Your task to perform on an android device: Open wifi settings Image 0: 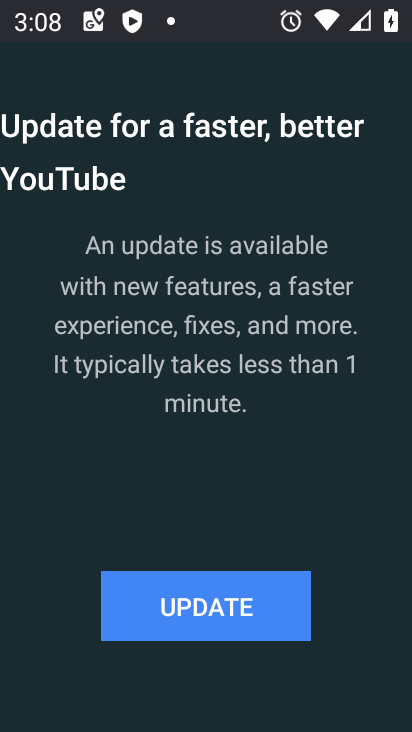
Step 0: press back button
Your task to perform on an android device: Open wifi settings Image 1: 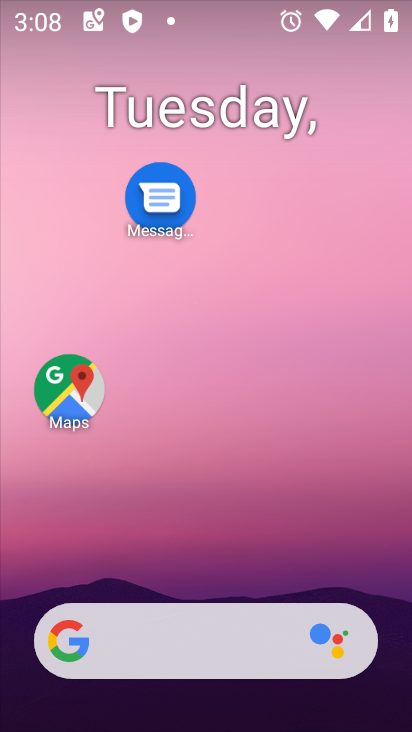
Step 1: drag from (267, 571) to (276, 185)
Your task to perform on an android device: Open wifi settings Image 2: 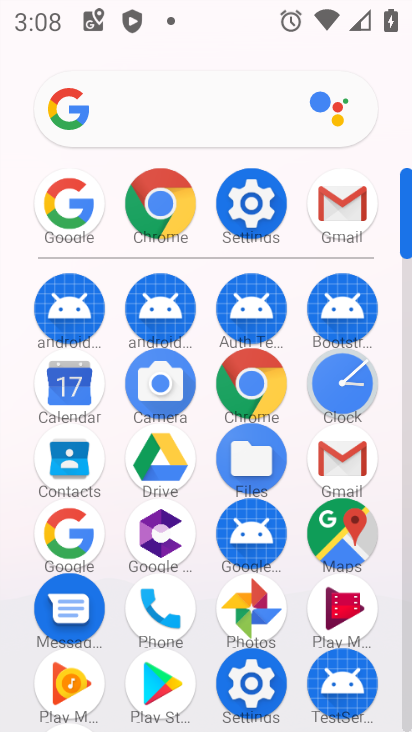
Step 2: click (276, 185)
Your task to perform on an android device: Open wifi settings Image 3: 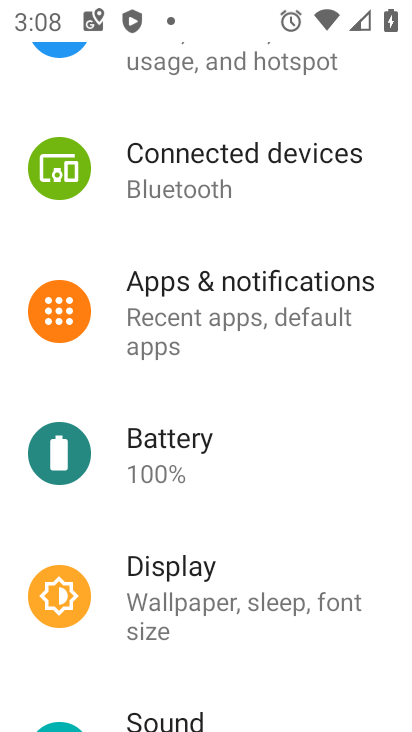
Step 3: drag from (276, 185) to (266, 513)
Your task to perform on an android device: Open wifi settings Image 4: 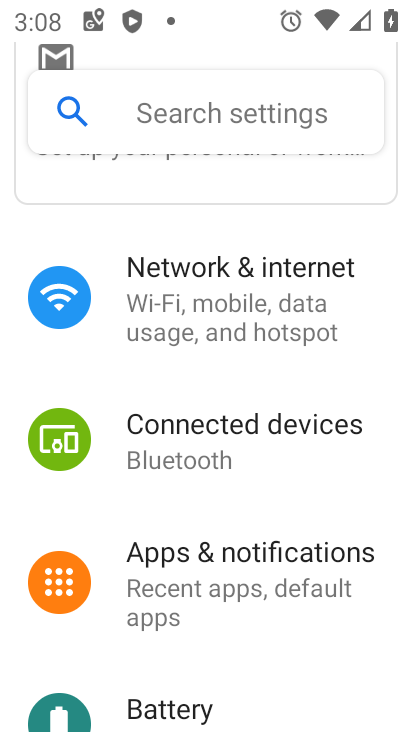
Step 4: click (237, 292)
Your task to perform on an android device: Open wifi settings Image 5: 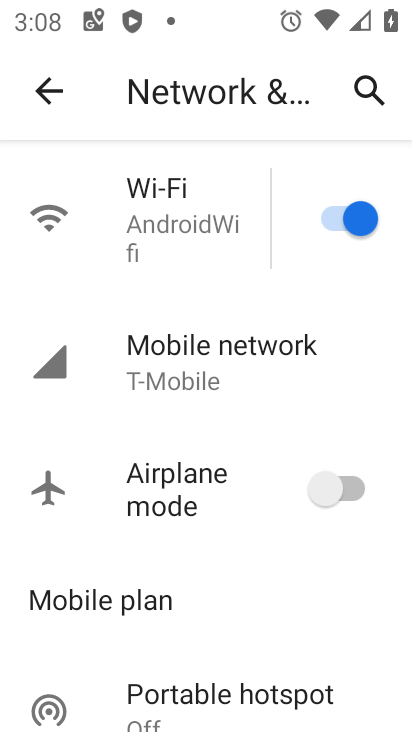
Step 5: click (158, 209)
Your task to perform on an android device: Open wifi settings Image 6: 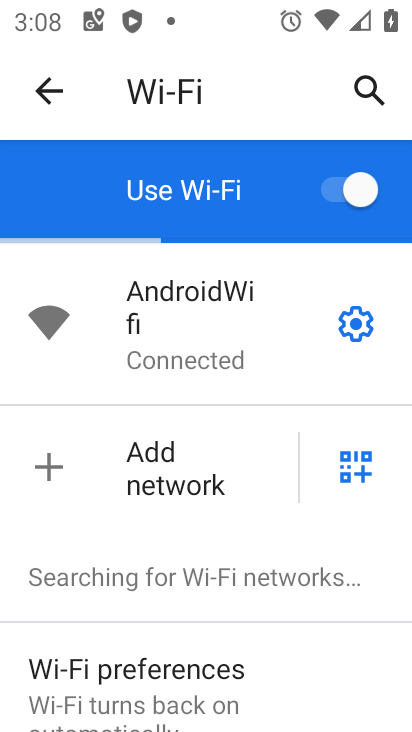
Step 6: task complete